Your task to perform on an android device: change notification settings in the gmail app Image 0: 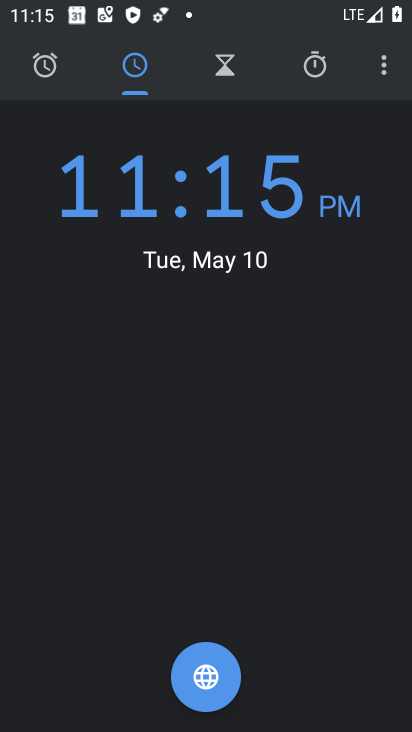
Step 0: press home button
Your task to perform on an android device: change notification settings in the gmail app Image 1: 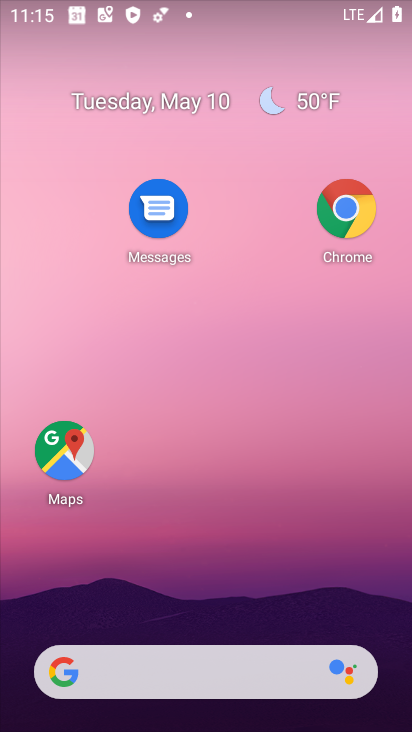
Step 1: drag from (181, 627) to (388, 399)
Your task to perform on an android device: change notification settings in the gmail app Image 2: 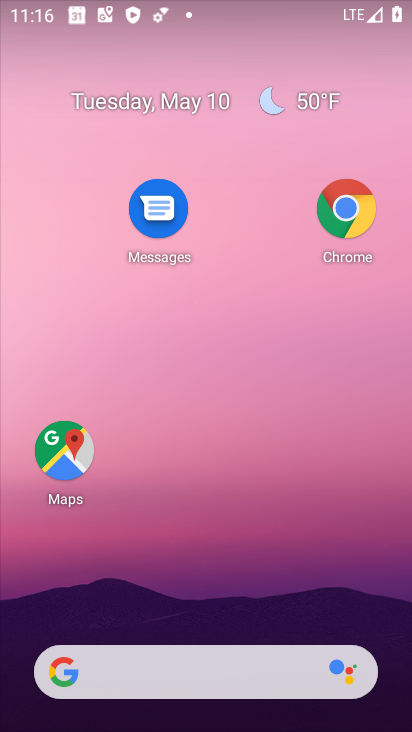
Step 2: drag from (246, 609) to (208, 29)
Your task to perform on an android device: change notification settings in the gmail app Image 3: 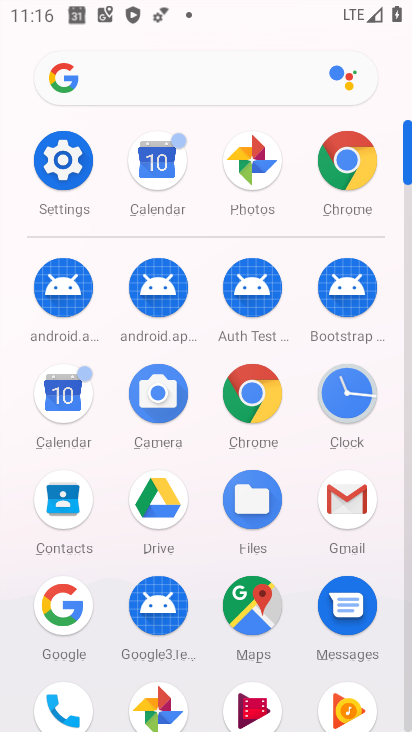
Step 3: click (337, 498)
Your task to perform on an android device: change notification settings in the gmail app Image 4: 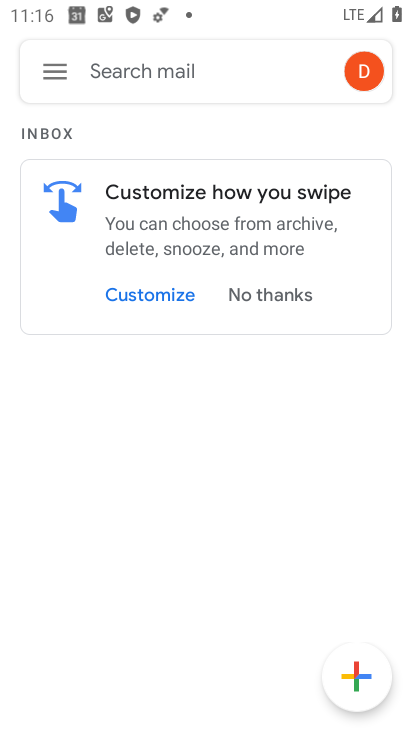
Step 4: click (50, 75)
Your task to perform on an android device: change notification settings in the gmail app Image 5: 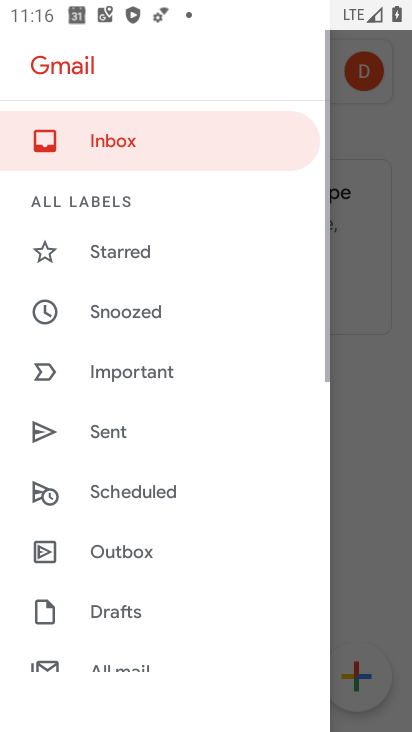
Step 5: drag from (123, 508) to (136, 85)
Your task to perform on an android device: change notification settings in the gmail app Image 6: 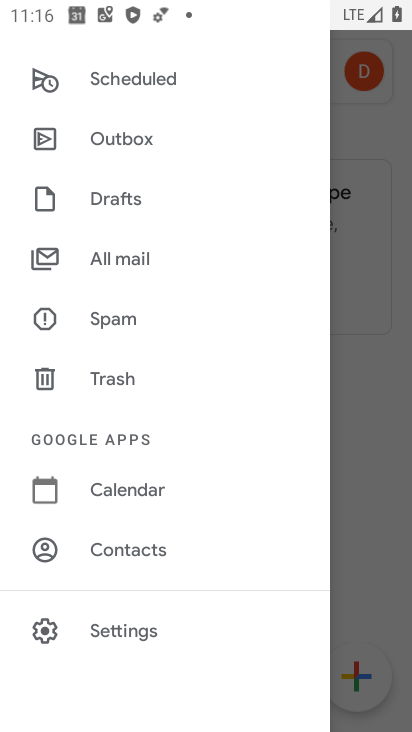
Step 6: click (136, 628)
Your task to perform on an android device: change notification settings in the gmail app Image 7: 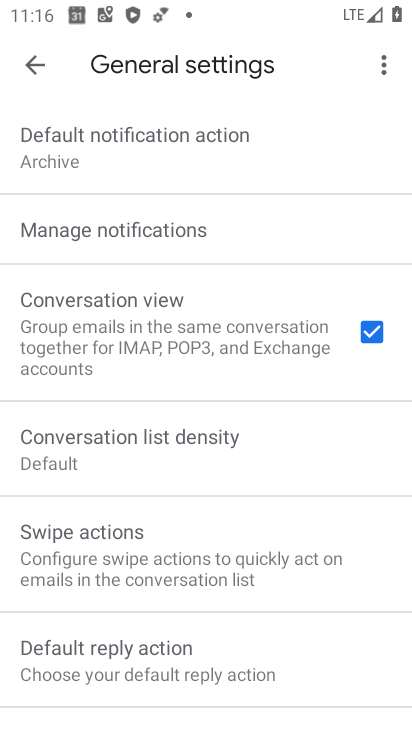
Step 7: drag from (130, 599) to (130, 458)
Your task to perform on an android device: change notification settings in the gmail app Image 8: 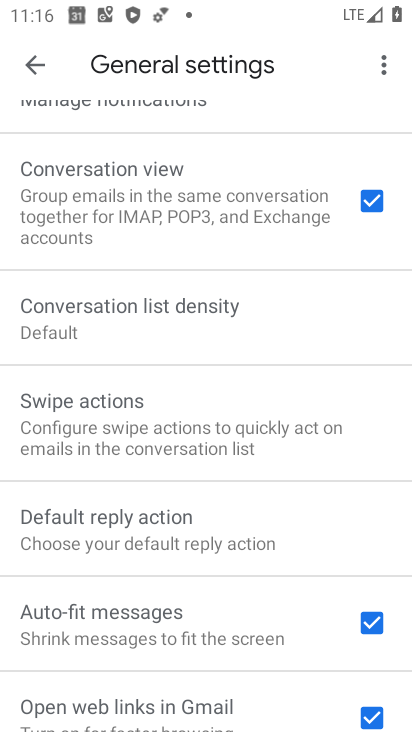
Step 8: drag from (127, 237) to (155, 418)
Your task to perform on an android device: change notification settings in the gmail app Image 9: 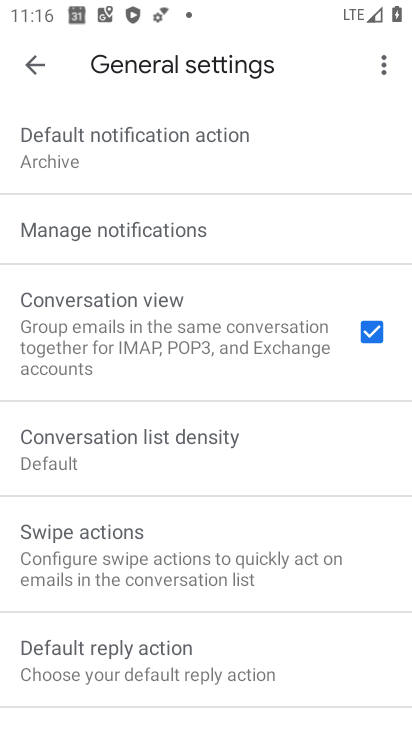
Step 9: click (165, 228)
Your task to perform on an android device: change notification settings in the gmail app Image 10: 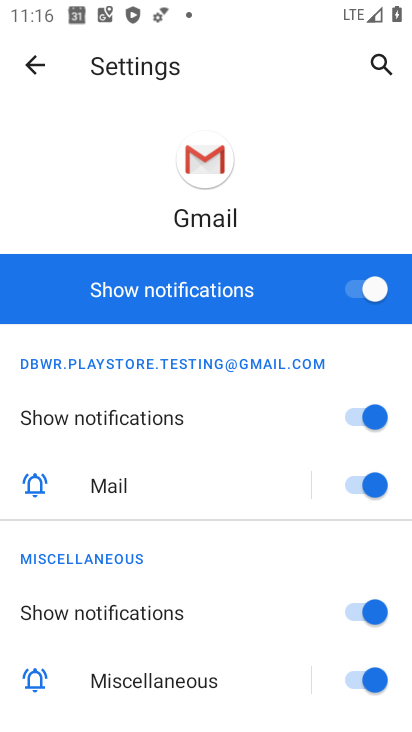
Step 10: click (376, 295)
Your task to perform on an android device: change notification settings in the gmail app Image 11: 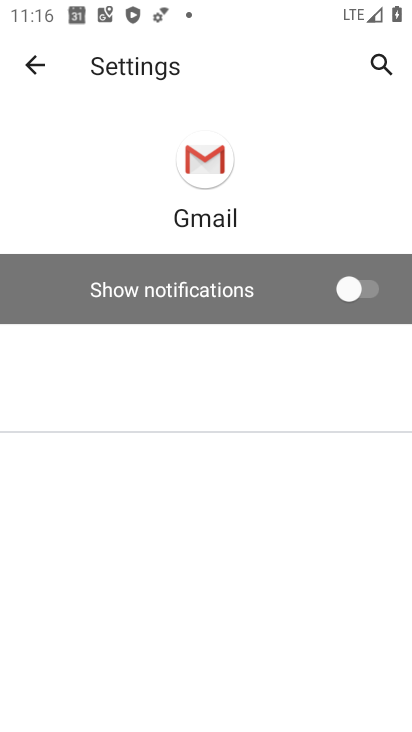
Step 11: task complete